Your task to perform on an android device: open chrome privacy settings Image 0: 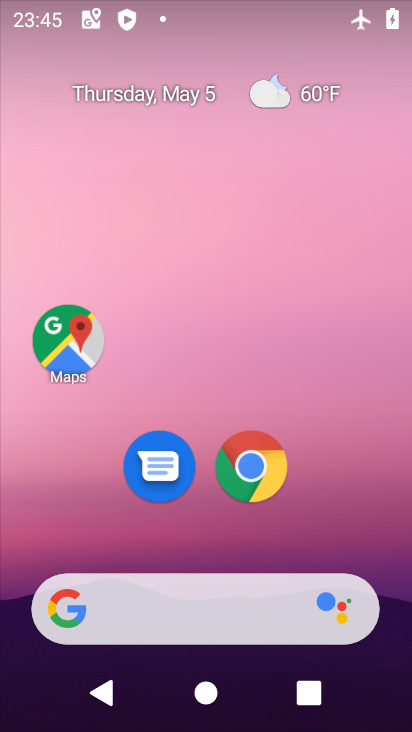
Step 0: click (256, 461)
Your task to perform on an android device: open chrome privacy settings Image 1: 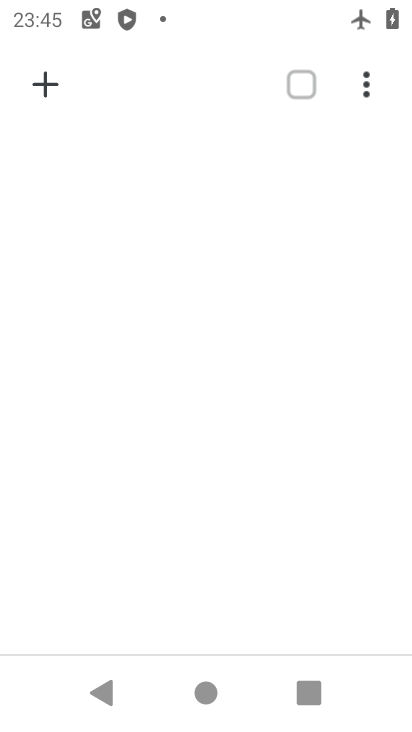
Step 1: click (366, 79)
Your task to perform on an android device: open chrome privacy settings Image 2: 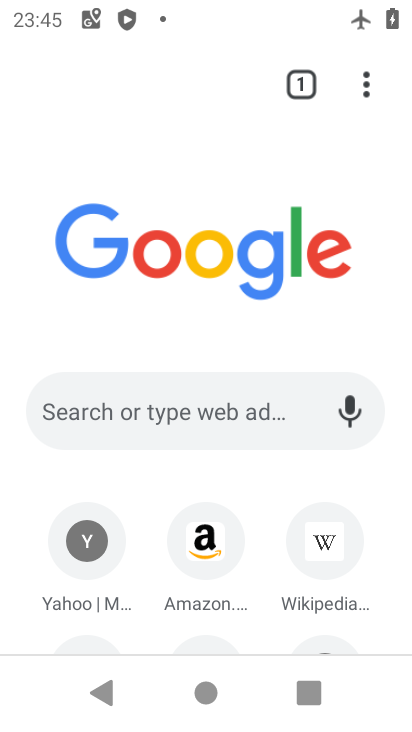
Step 2: click (363, 79)
Your task to perform on an android device: open chrome privacy settings Image 3: 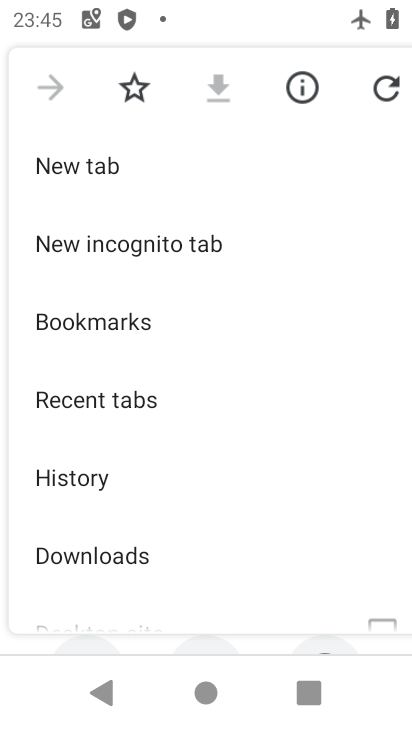
Step 3: drag from (87, 610) to (124, 228)
Your task to perform on an android device: open chrome privacy settings Image 4: 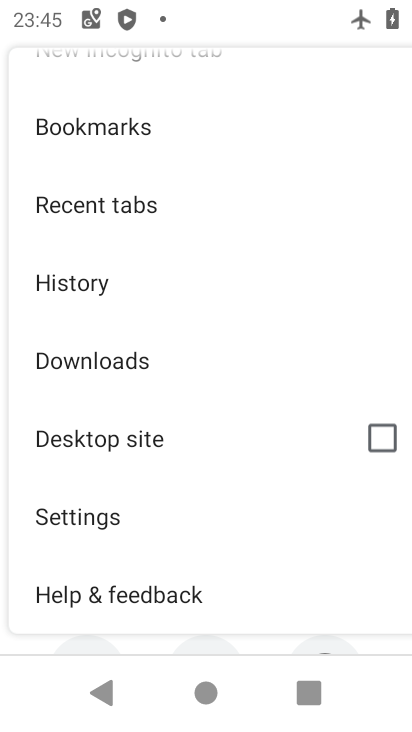
Step 4: click (70, 524)
Your task to perform on an android device: open chrome privacy settings Image 5: 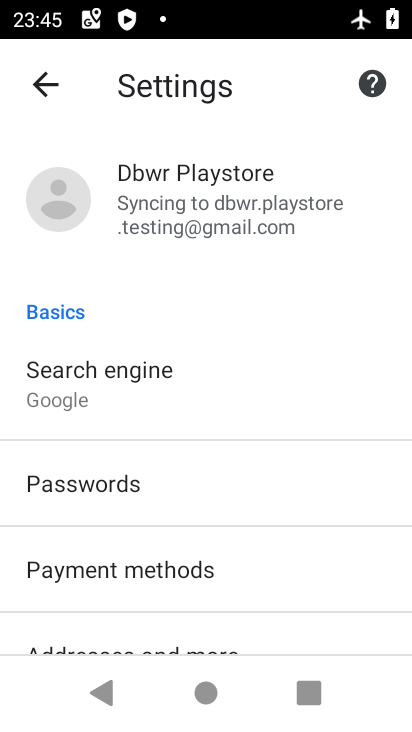
Step 5: drag from (117, 650) to (142, 356)
Your task to perform on an android device: open chrome privacy settings Image 6: 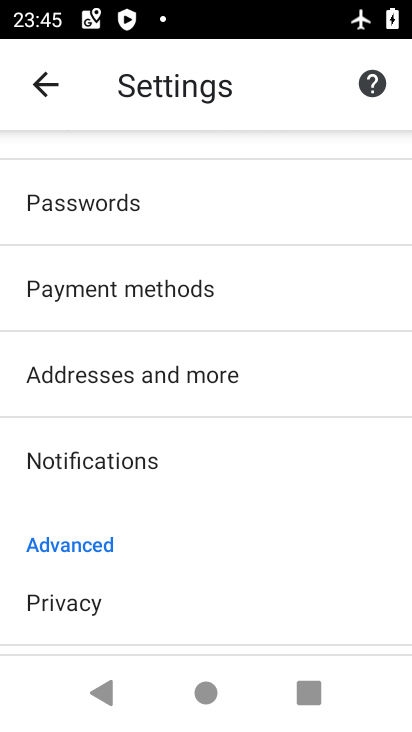
Step 6: click (84, 610)
Your task to perform on an android device: open chrome privacy settings Image 7: 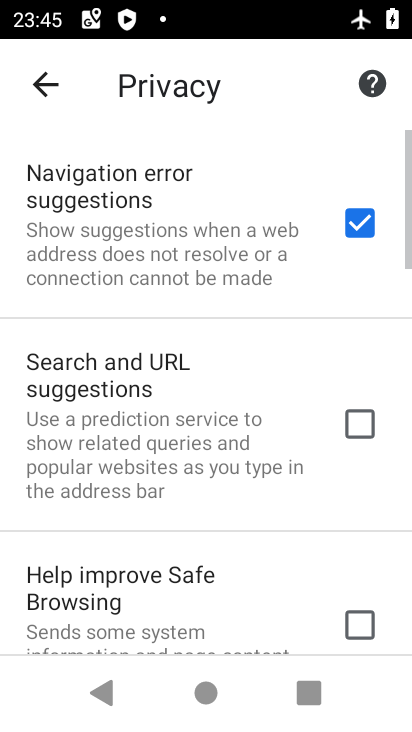
Step 7: task complete